Your task to perform on an android device: Open Yahoo.com Image 0: 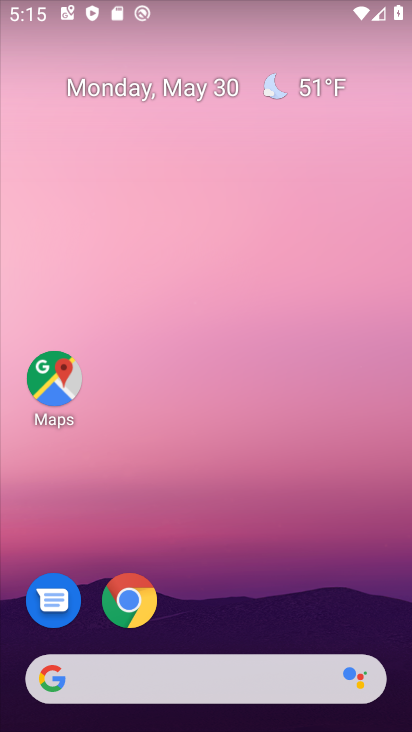
Step 0: drag from (211, 397) to (189, 100)
Your task to perform on an android device: Open Yahoo.com Image 1: 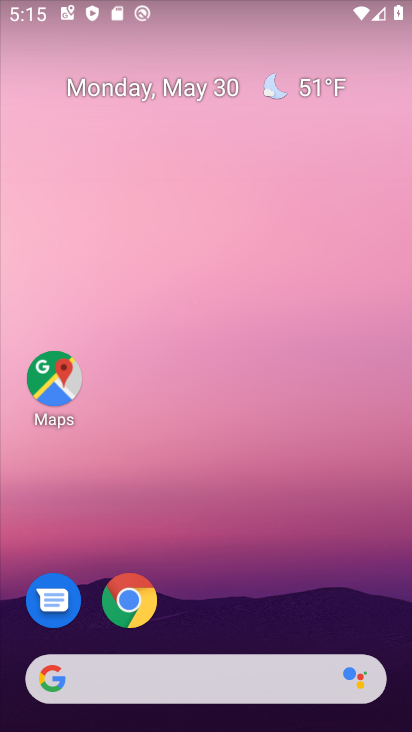
Step 1: drag from (273, 686) to (208, 130)
Your task to perform on an android device: Open Yahoo.com Image 2: 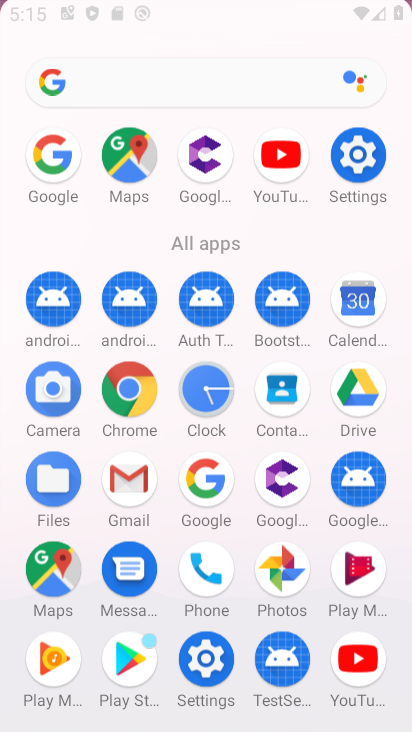
Step 2: drag from (175, 477) to (175, 154)
Your task to perform on an android device: Open Yahoo.com Image 3: 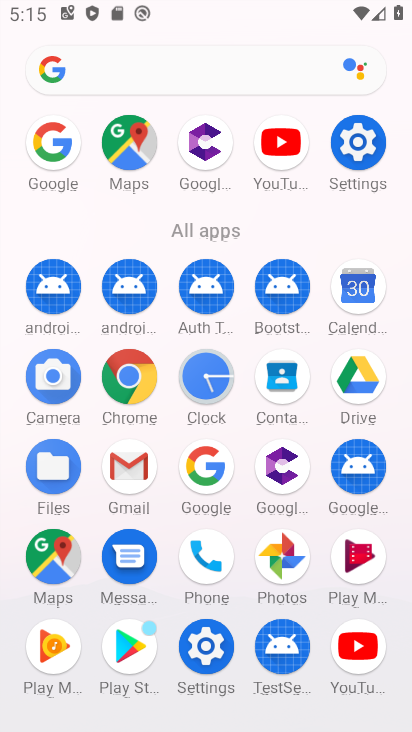
Step 3: click (146, 373)
Your task to perform on an android device: Open Yahoo.com Image 4: 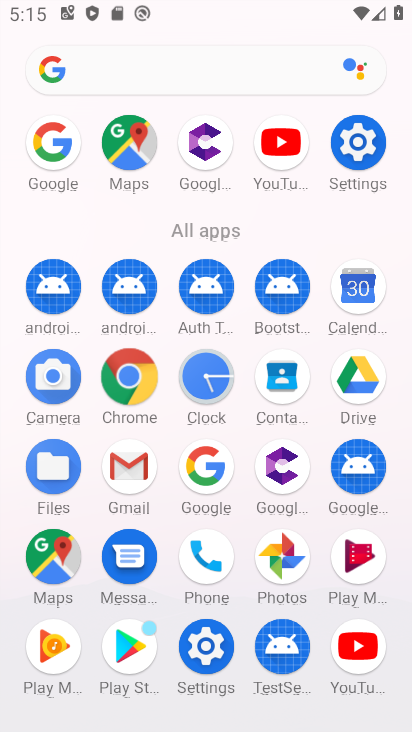
Step 4: click (144, 373)
Your task to perform on an android device: Open Yahoo.com Image 5: 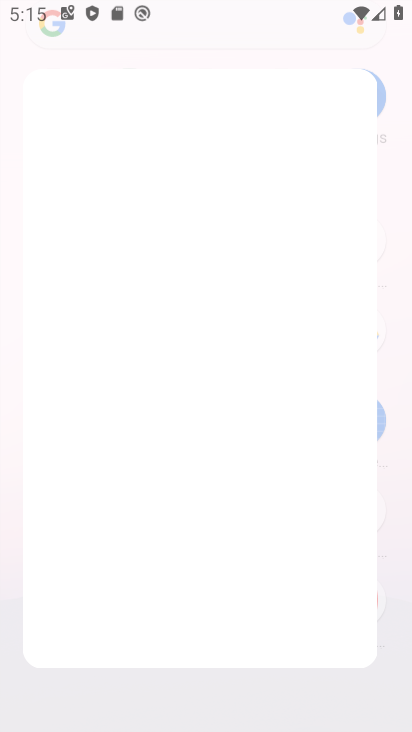
Step 5: click (139, 375)
Your task to perform on an android device: Open Yahoo.com Image 6: 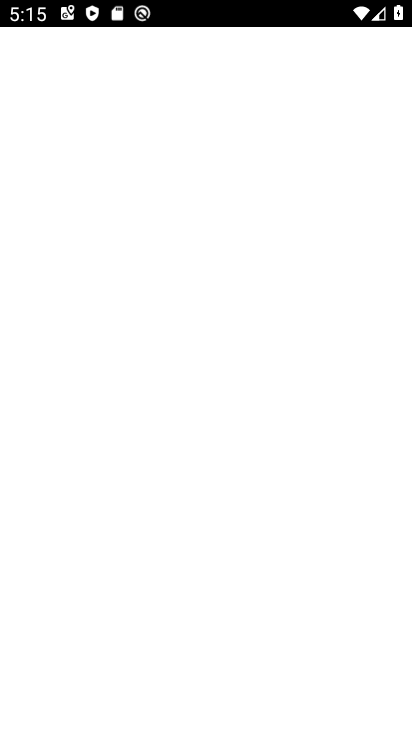
Step 6: click (102, 111)
Your task to perform on an android device: Open Yahoo.com Image 7: 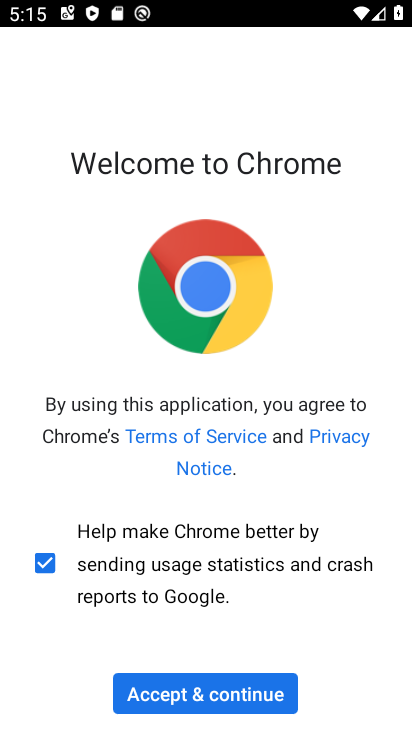
Step 7: click (222, 693)
Your task to perform on an android device: Open Yahoo.com Image 8: 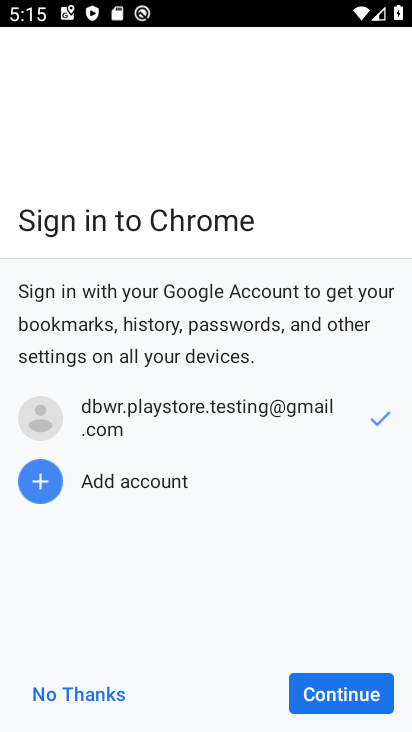
Step 8: click (327, 689)
Your task to perform on an android device: Open Yahoo.com Image 9: 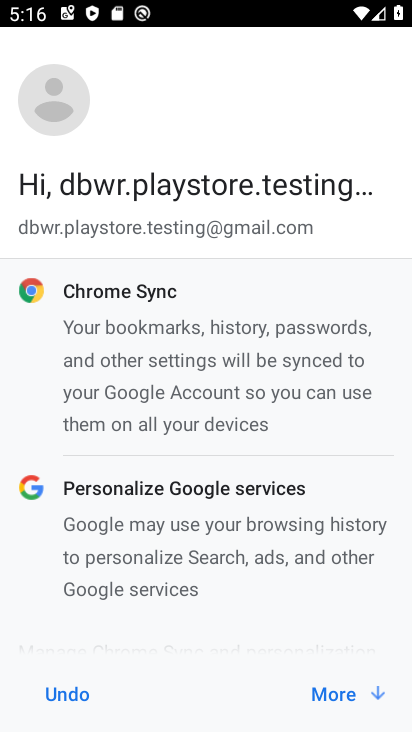
Step 9: press back button
Your task to perform on an android device: Open Yahoo.com Image 10: 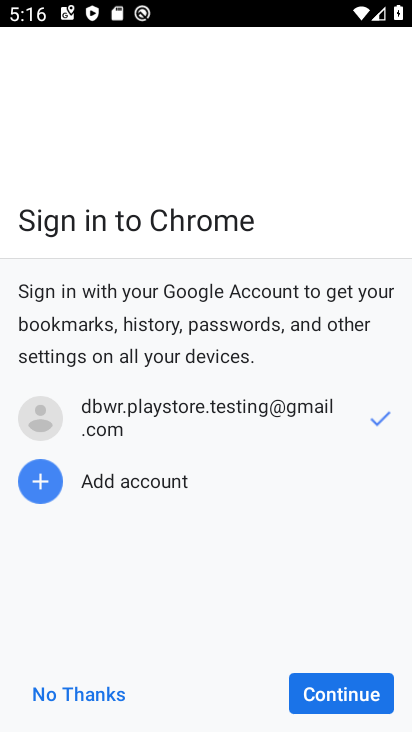
Step 10: press back button
Your task to perform on an android device: Open Yahoo.com Image 11: 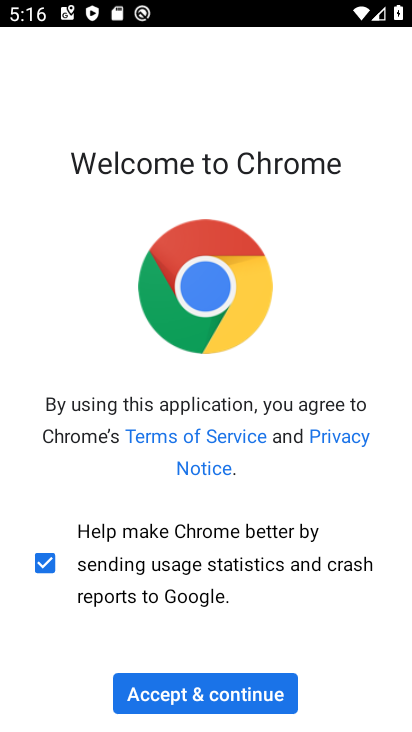
Step 11: click (249, 705)
Your task to perform on an android device: Open Yahoo.com Image 12: 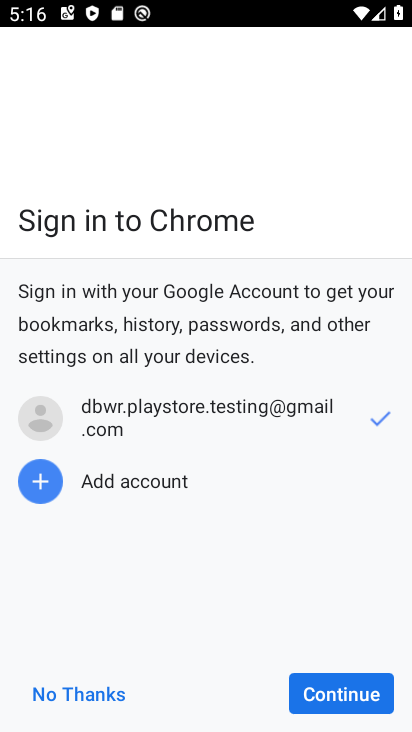
Step 12: click (248, 705)
Your task to perform on an android device: Open Yahoo.com Image 13: 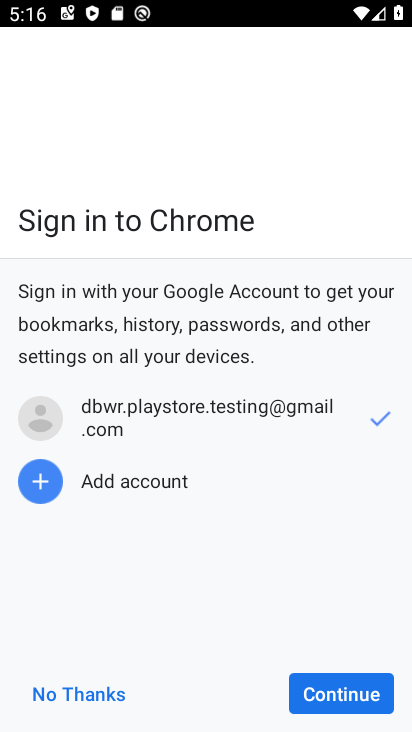
Step 13: click (332, 689)
Your task to perform on an android device: Open Yahoo.com Image 14: 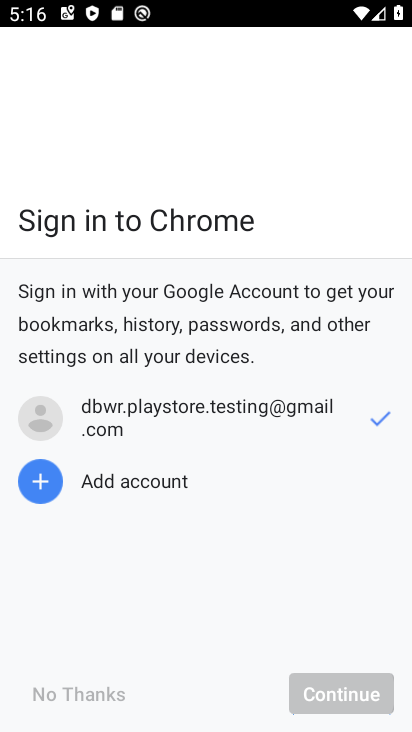
Step 14: click (332, 689)
Your task to perform on an android device: Open Yahoo.com Image 15: 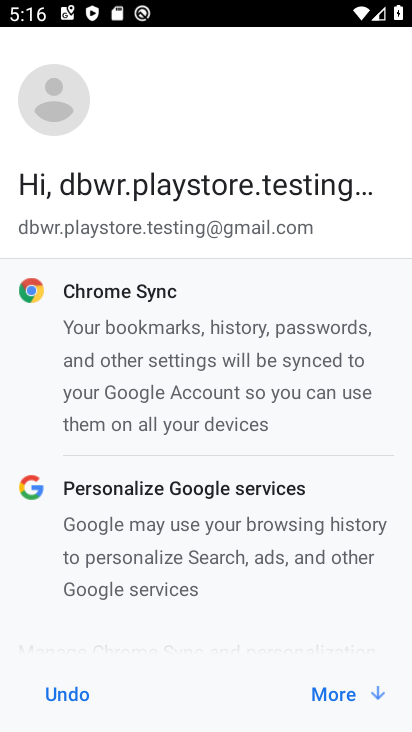
Step 15: click (333, 689)
Your task to perform on an android device: Open Yahoo.com Image 16: 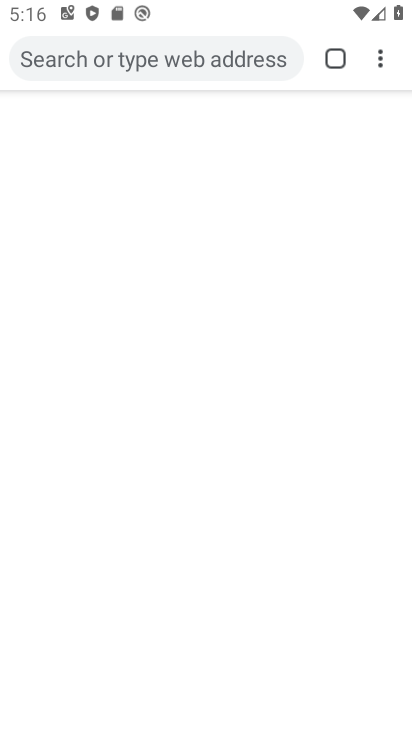
Step 16: click (359, 685)
Your task to perform on an android device: Open Yahoo.com Image 17: 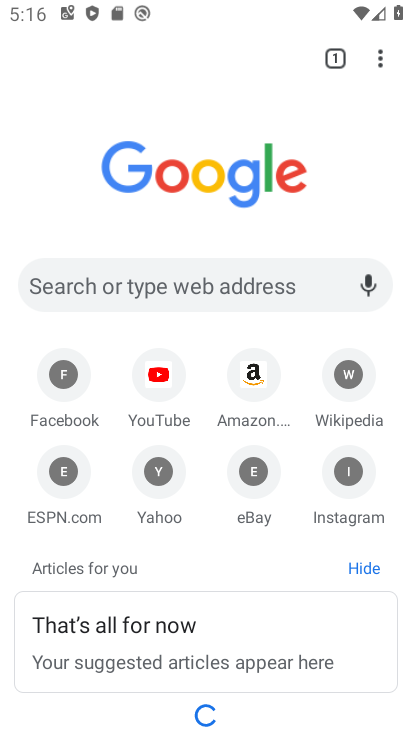
Step 17: click (159, 476)
Your task to perform on an android device: Open Yahoo.com Image 18: 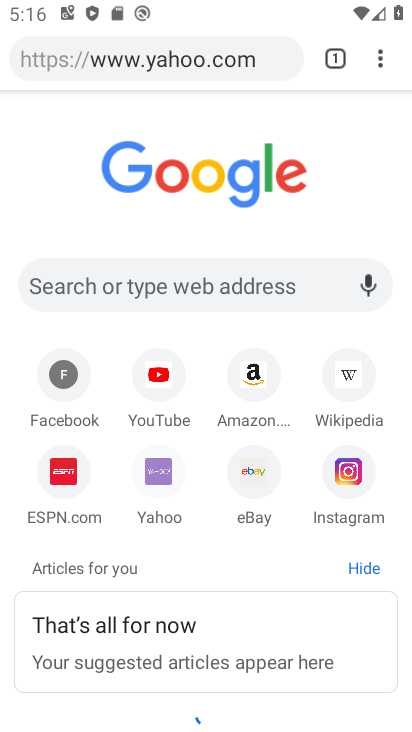
Step 18: click (158, 475)
Your task to perform on an android device: Open Yahoo.com Image 19: 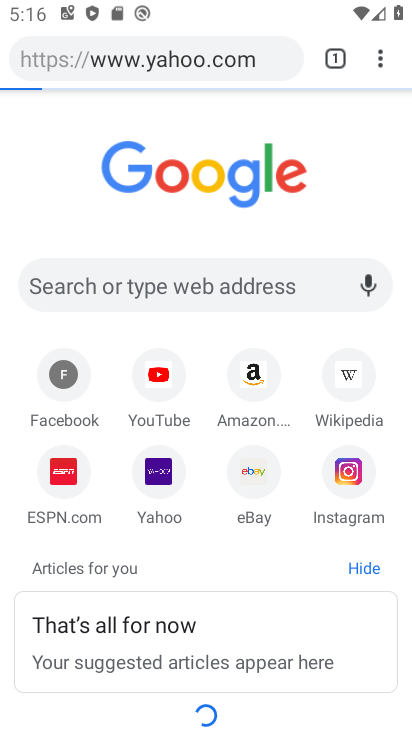
Step 19: click (158, 475)
Your task to perform on an android device: Open Yahoo.com Image 20: 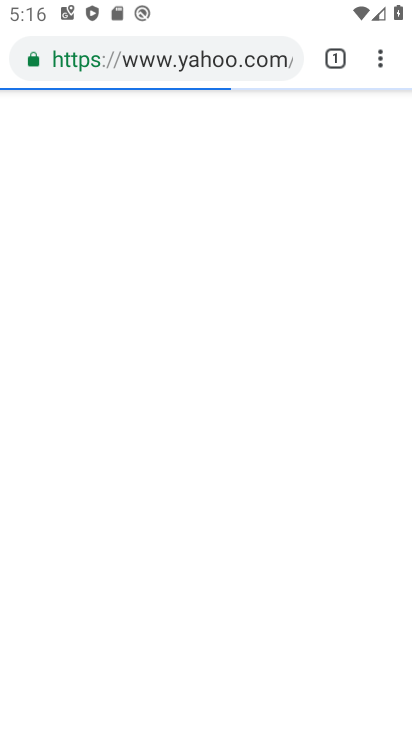
Step 20: task complete